Your task to perform on an android device: change your default location settings in chrome Image 0: 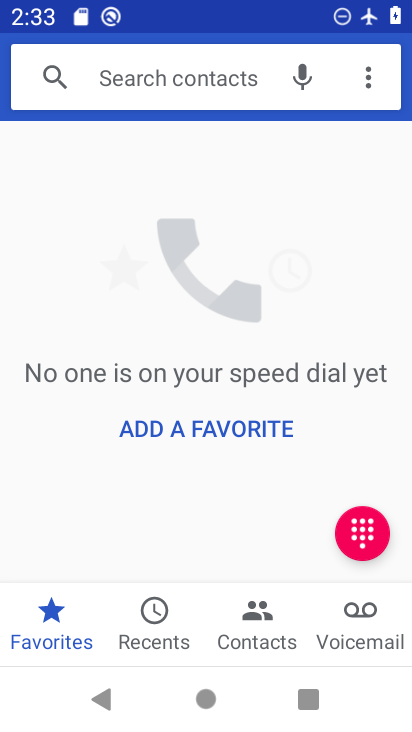
Step 0: press home button
Your task to perform on an android device: change your default location settings in chrome Image 1: 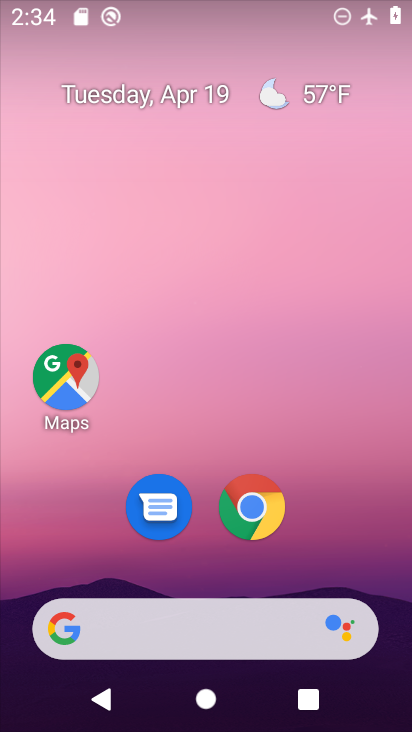
Step 1: click (240, 520)
Your task to perform on an android device: change your default location settings in chrome Image 2: 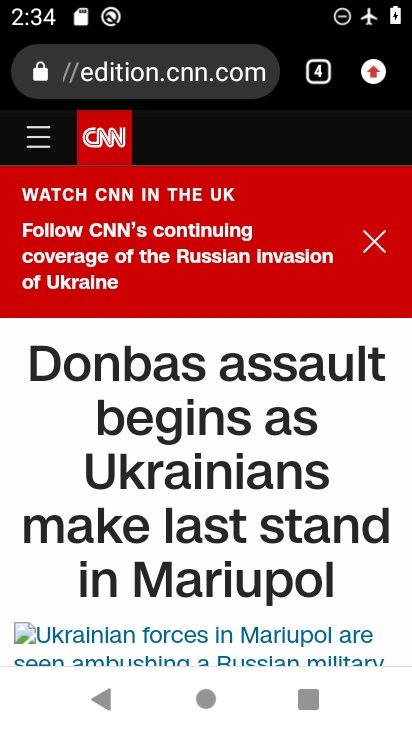
Step 2: click (368, 79)
Your task to perform on an android device: change your default location settings in chrome Image 3: 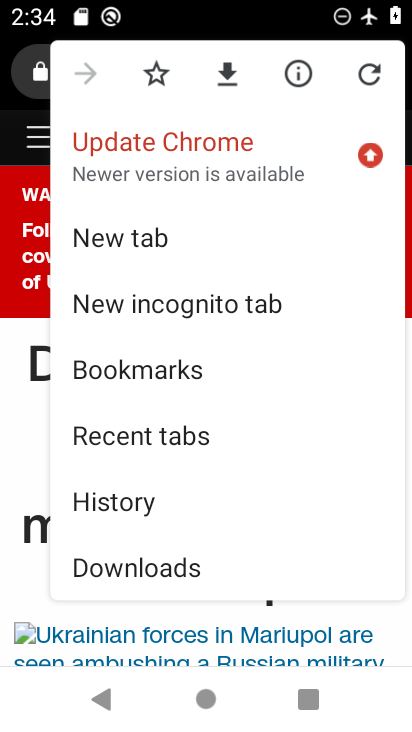
Step 3: drag from (207, 561) to (201, 334)
Your task to perform on an android device: change your default location settings in chrome Image 4: 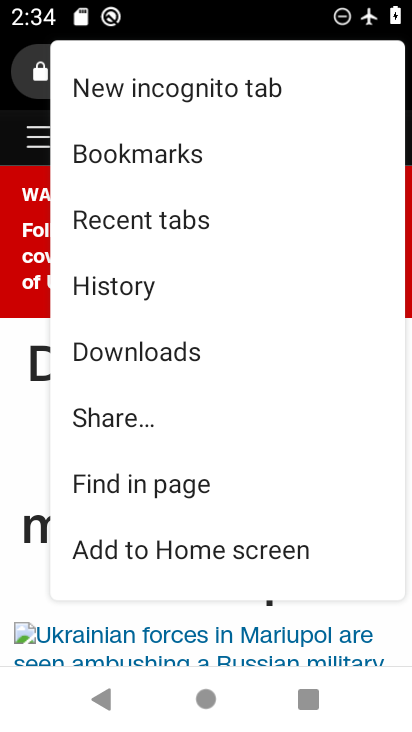
Step 4: drag from (220, 524) to (250, 291)
Your task to perform on an android device: change your default location settings in chrome Image 5: 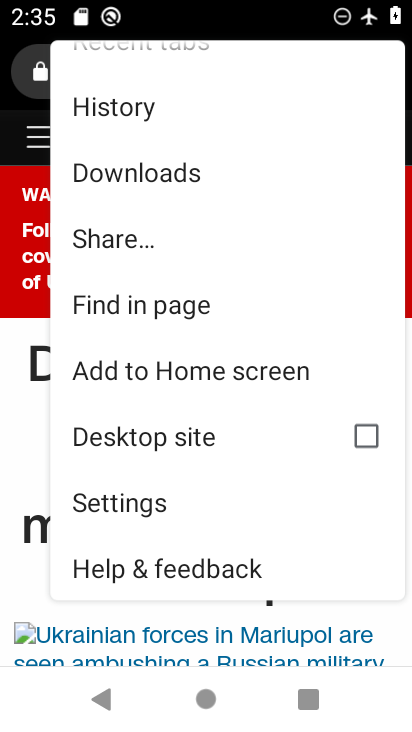
Step 5: click (207, 486)
Your task to perform on an android device: change your default location settings in chrome Image 6: 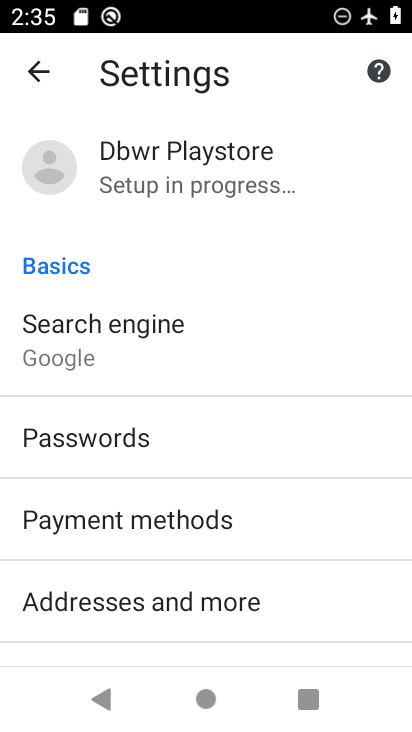
Step 6: drag from (168, 542) to (215, 242)
Your task to perform on an android device: change your default location settings in chrome Image 7: 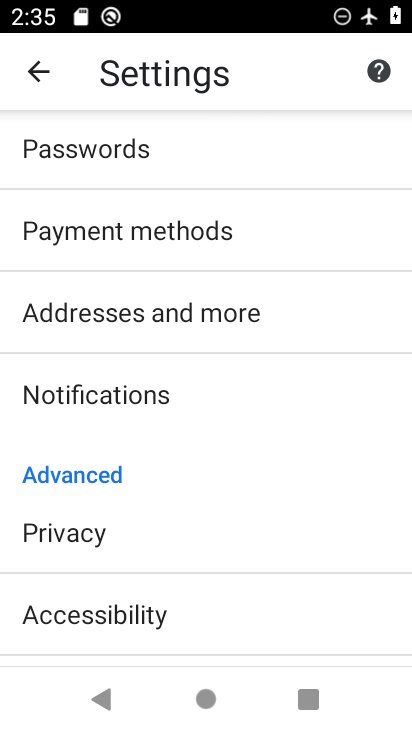
Step 7: click (170, 303)
Your task to perform on an android device: change your default location settings in chrome Image 8: 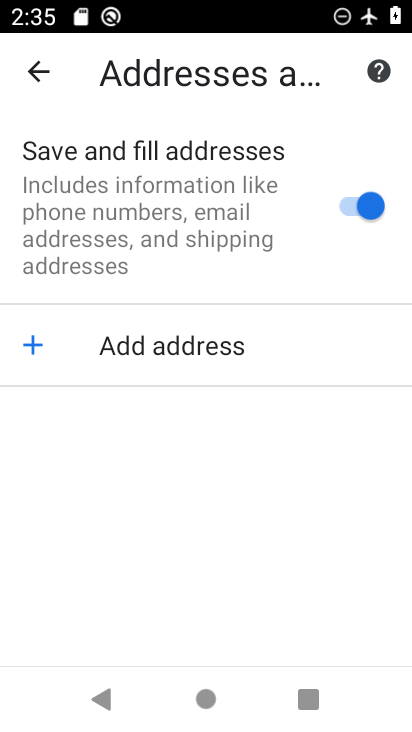
Step 8: task complete